Your task to perform on an android device: uninstall "Google Photos" Image 0: 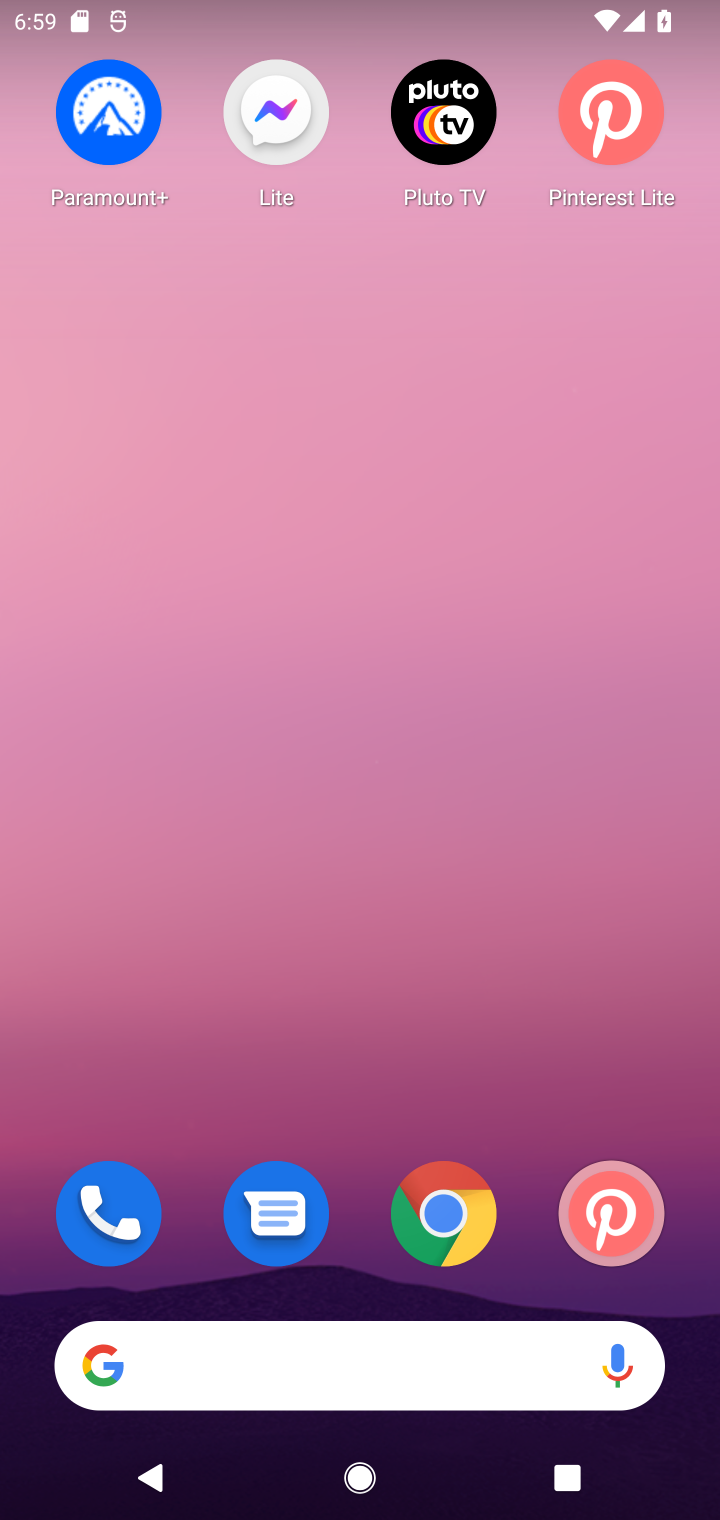
Step 0: drag from (373, 1049) to (184, 2)
Your task to perform on an android device: uninstall "Google Photos" Image 1: 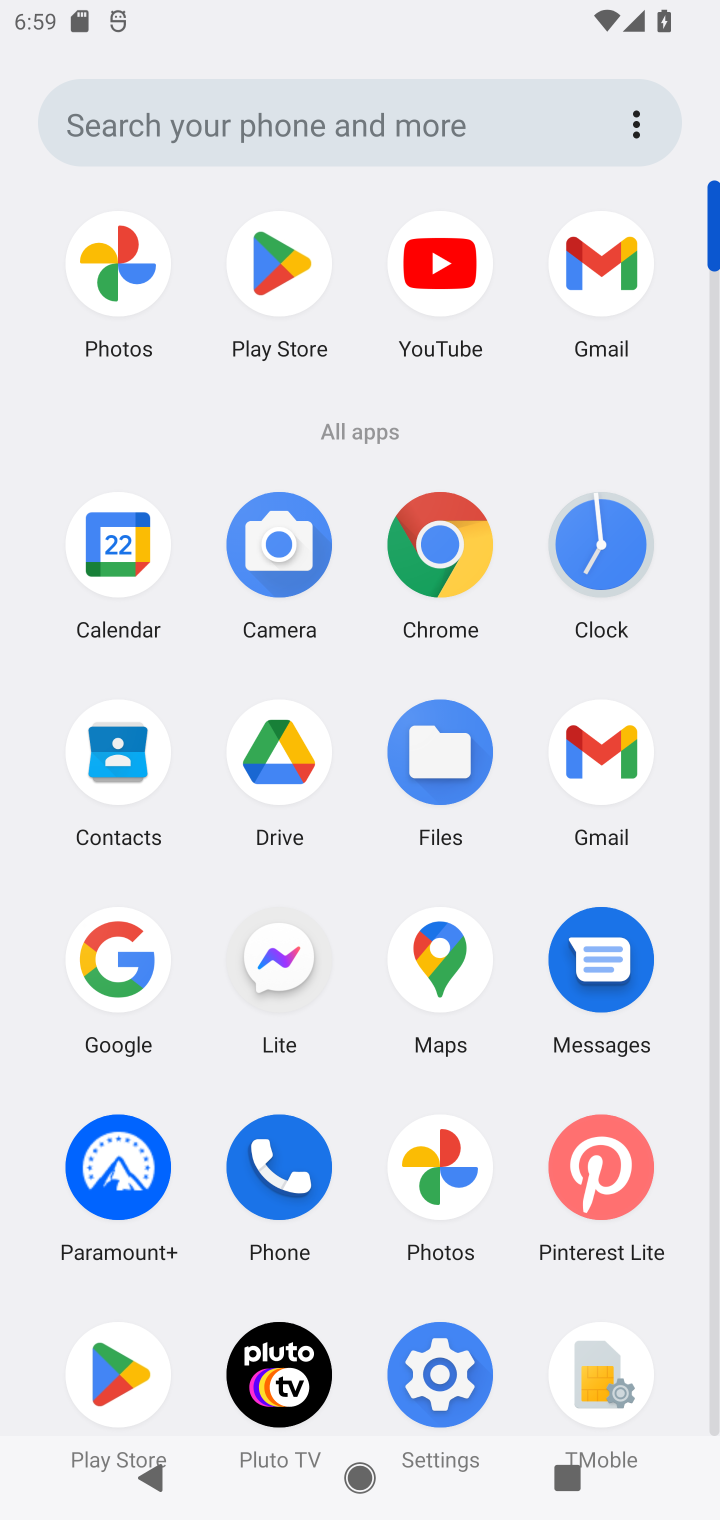
Step 1: click (283, 263)
Your task to perform on an android device: uninstall "Google Photos" Image 2: 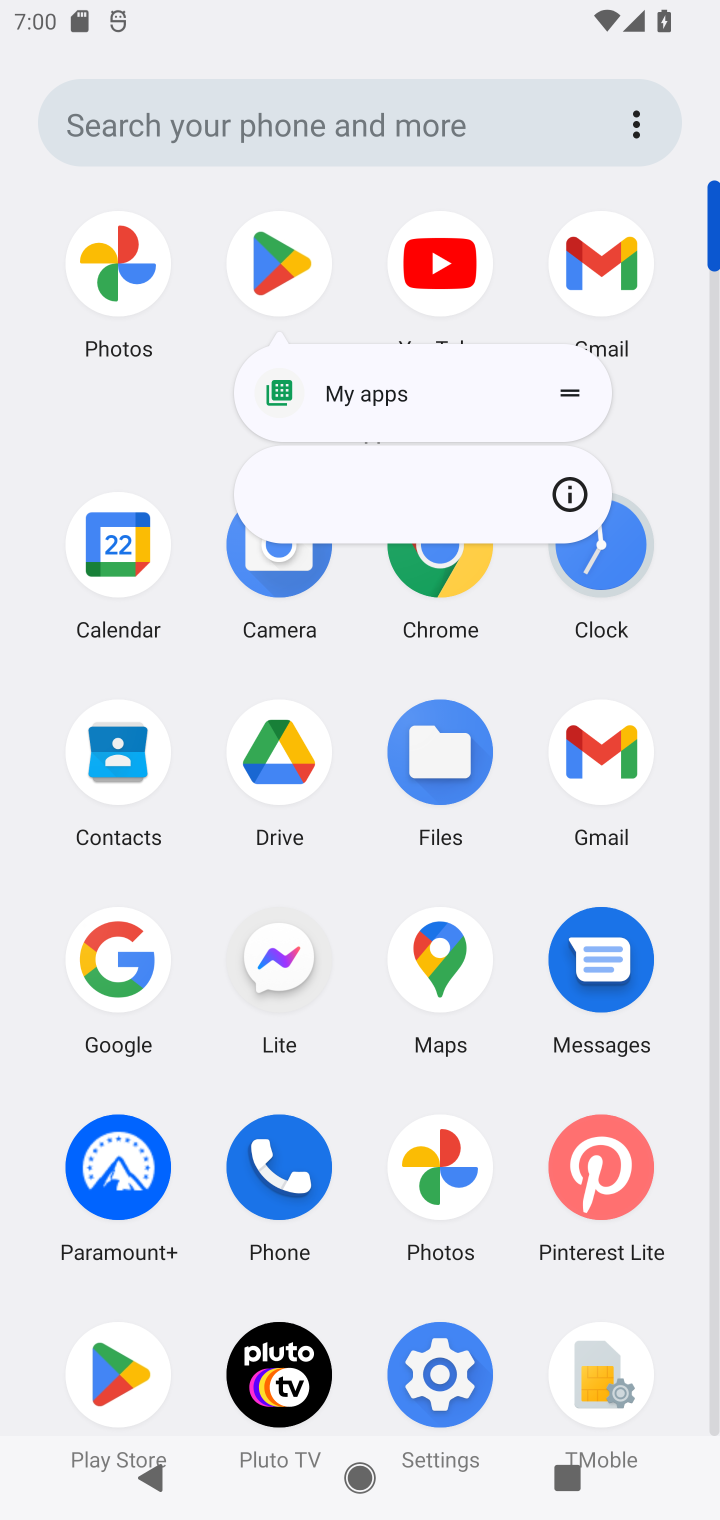
Step 2: click (264, 254)
Your task to perform on an android device: uninstall "Google Photos" Image 3: 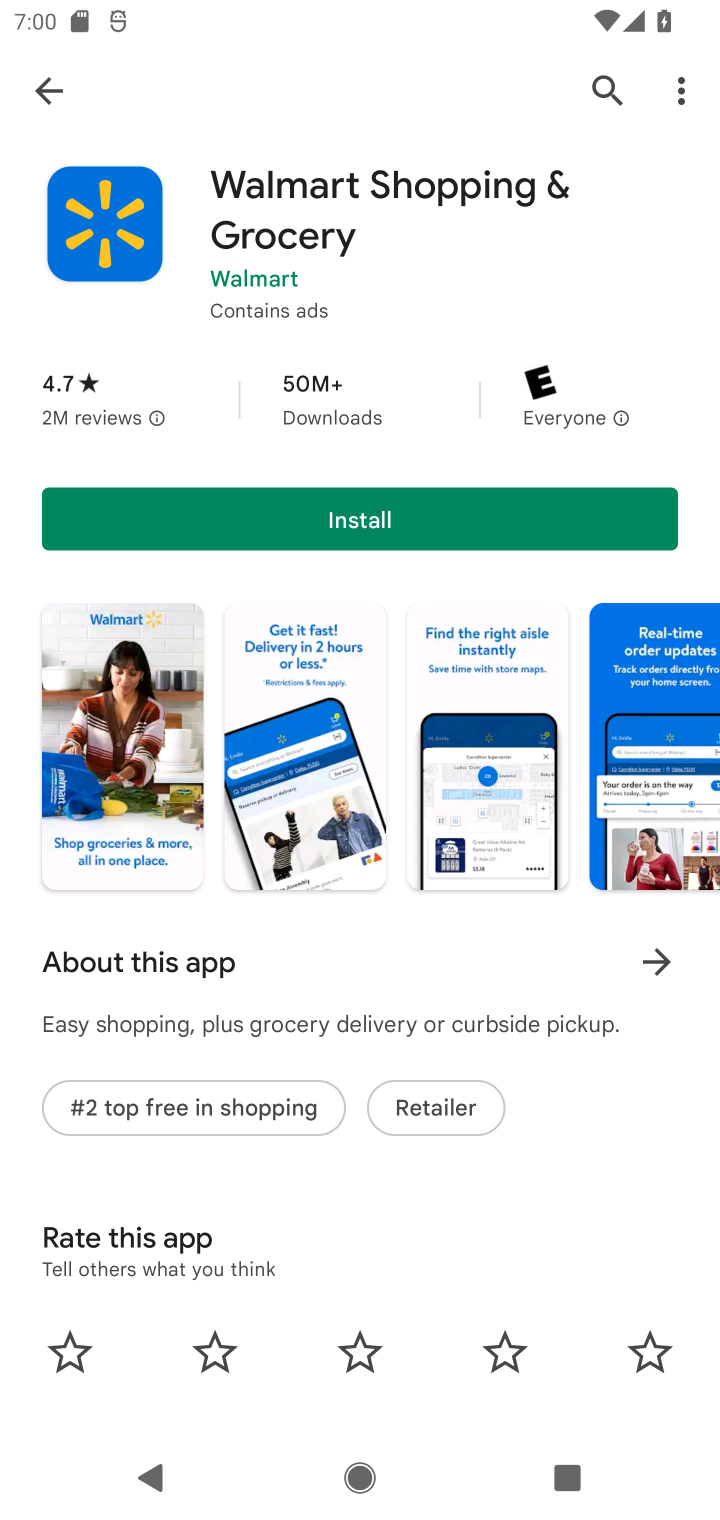
Step 3: click (594, 88)
Your task to perform on an android device: uninstall "Google Photos" Image 4: 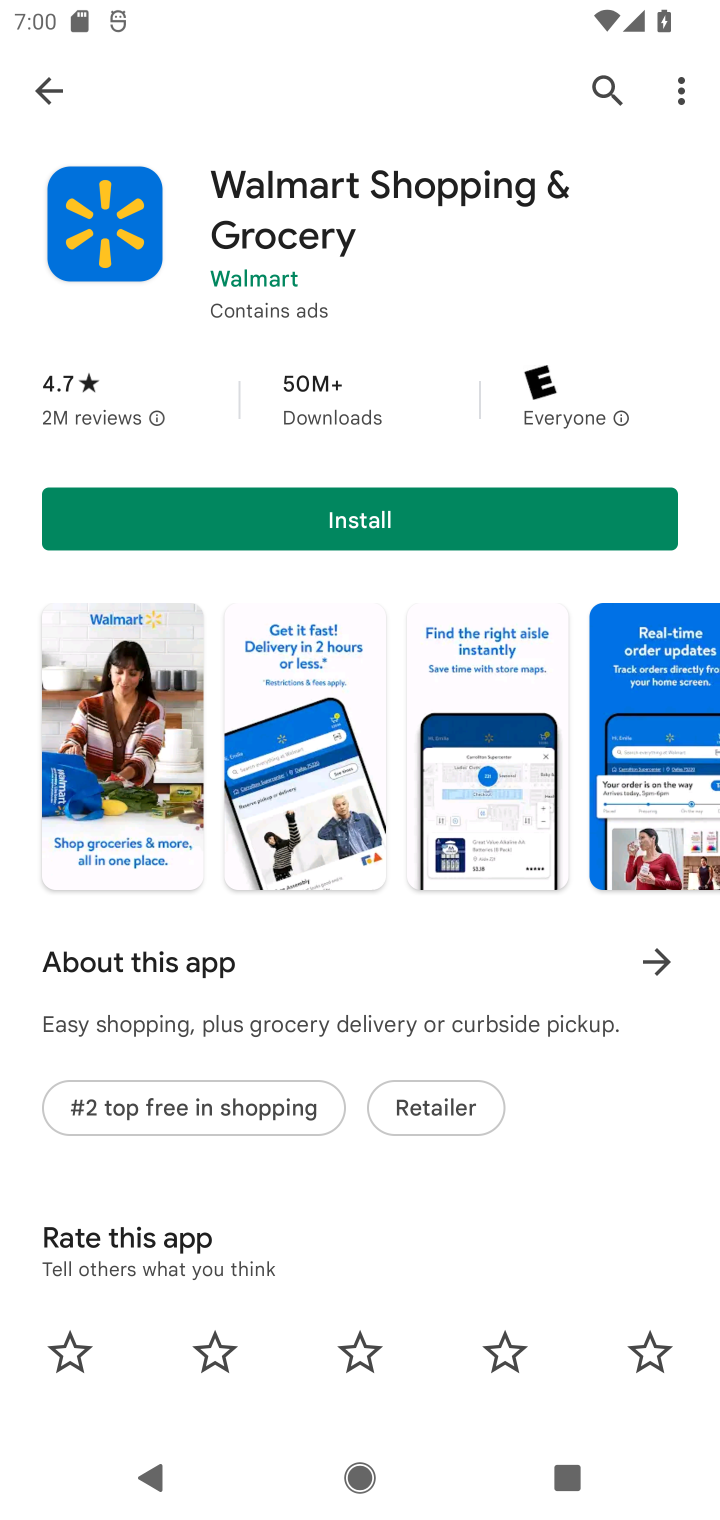
Step 4: press back button
Your task to perform on an android device: uninstall "Google Photos" Image 5: 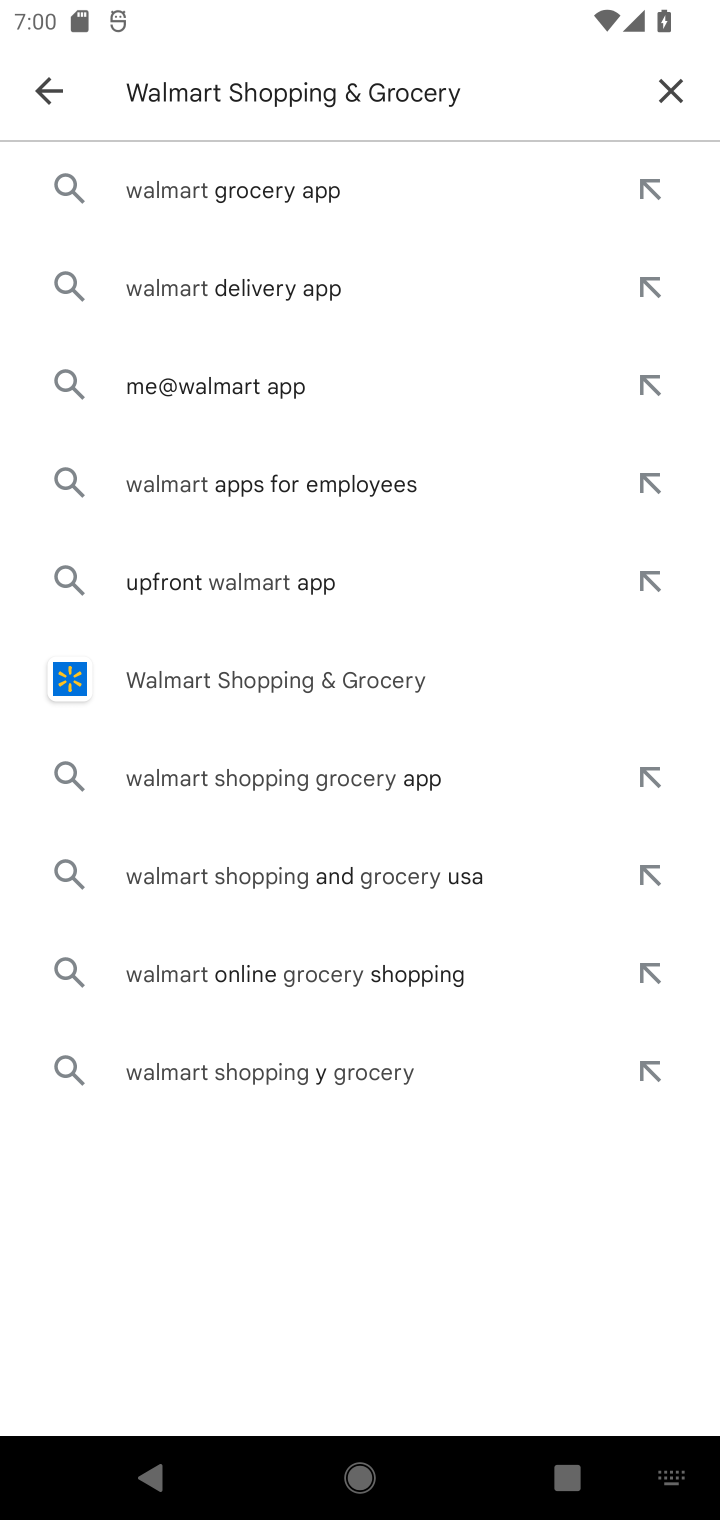
Step 5: click (691, 88)
Your task to perform on an android device: uninstall "Google Photos" Image 6: 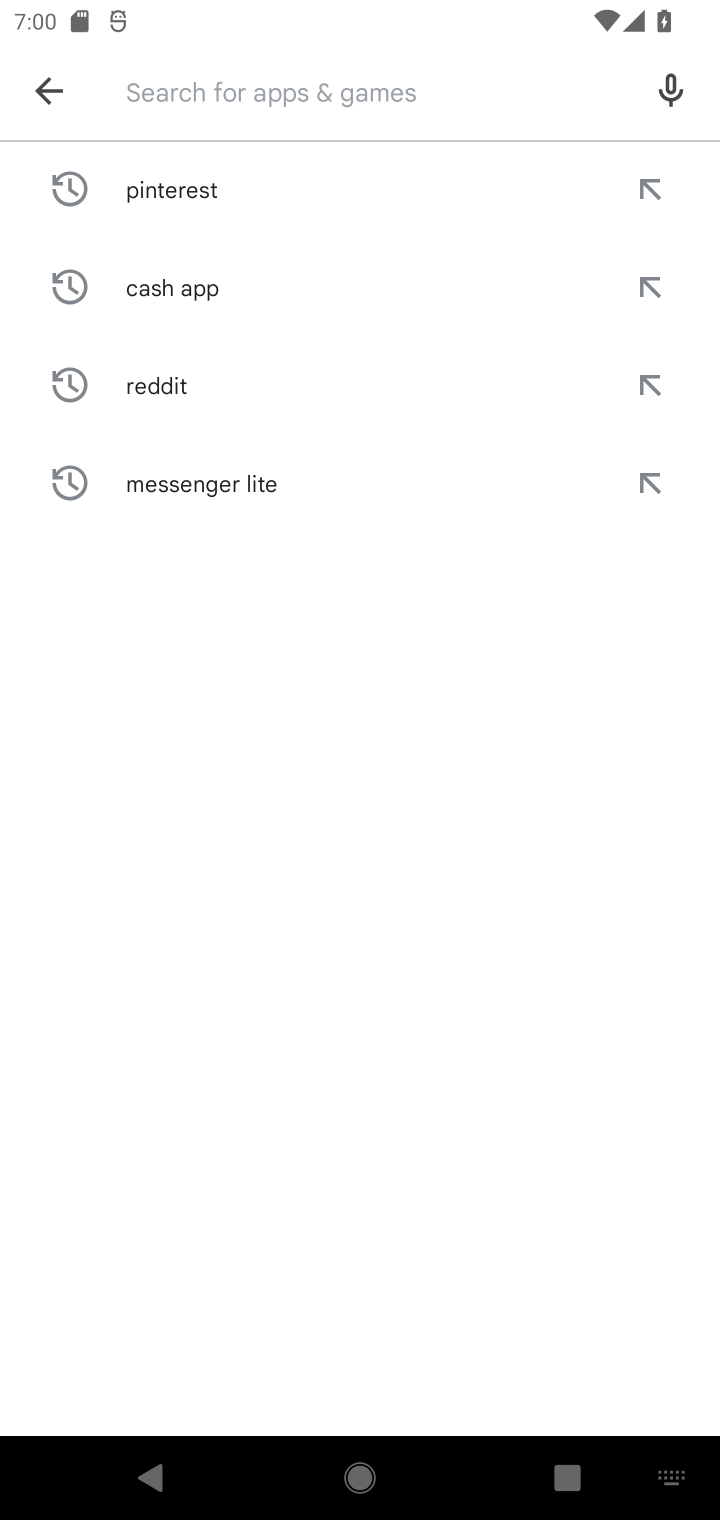
Step 6: type "Google Photos"
Your task to perform on an android device: uninstall "Google Photos" Image 7: 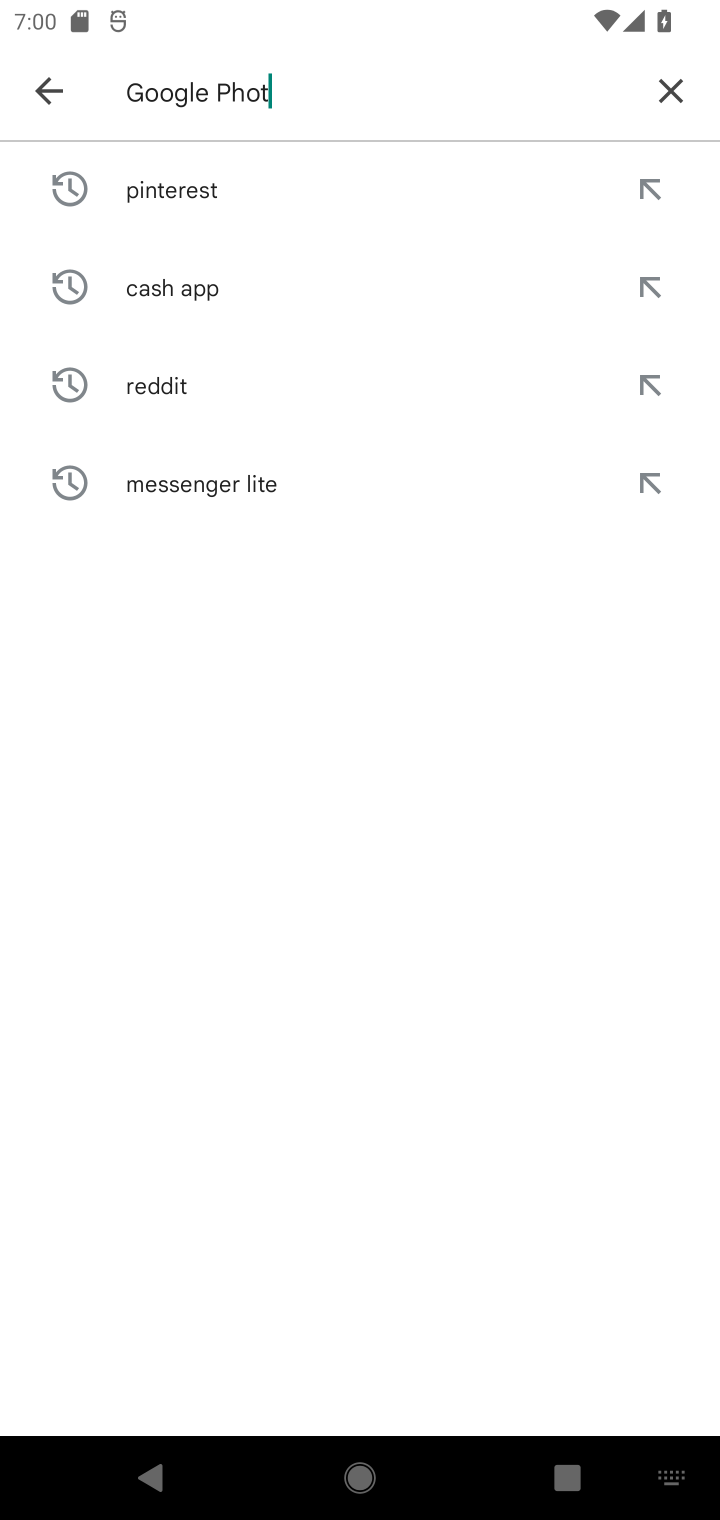
Step 7: type ""
Your task to perform on an android device: uninstall "Google Photos" Image 8: 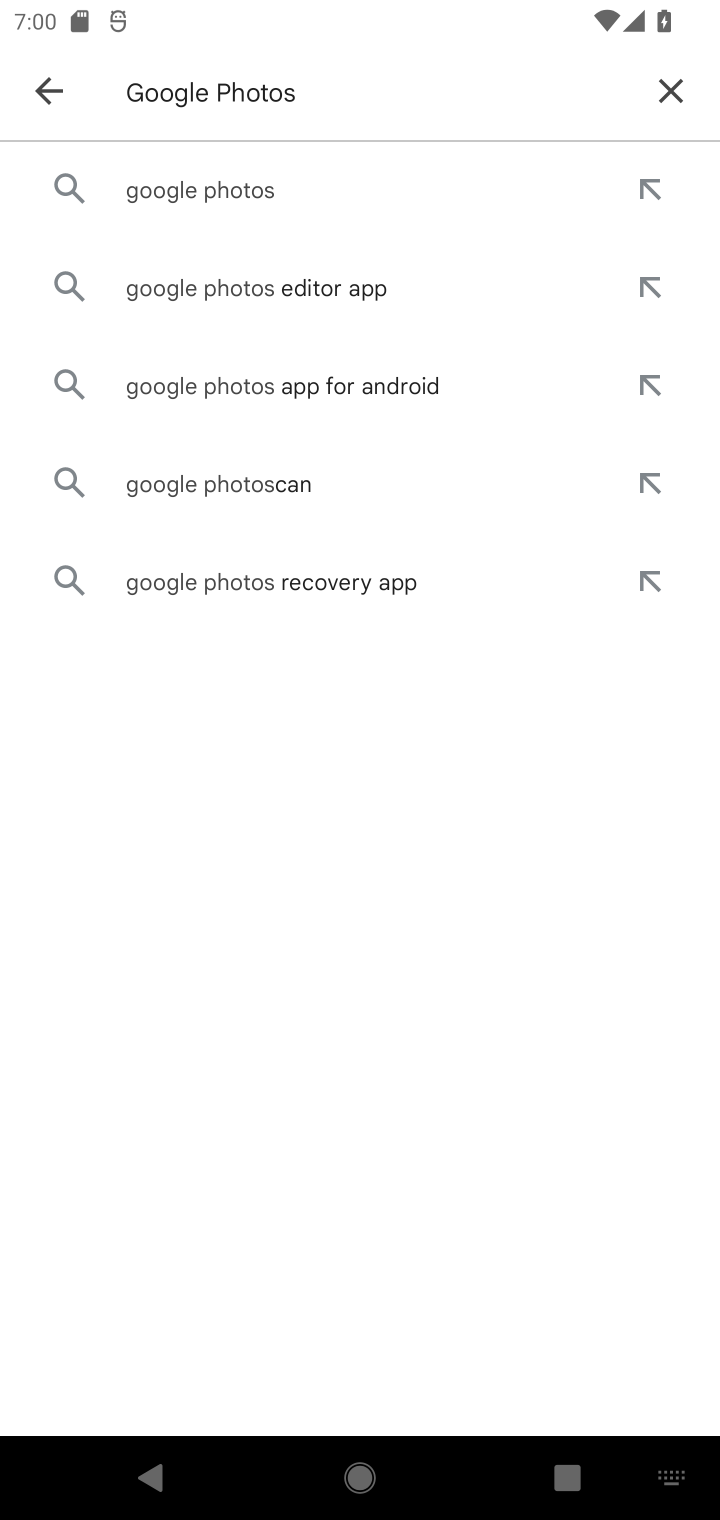
Step 8: click (215, 194)
Your task to perform on an android device: uninstall "Google Photos" Image 9: 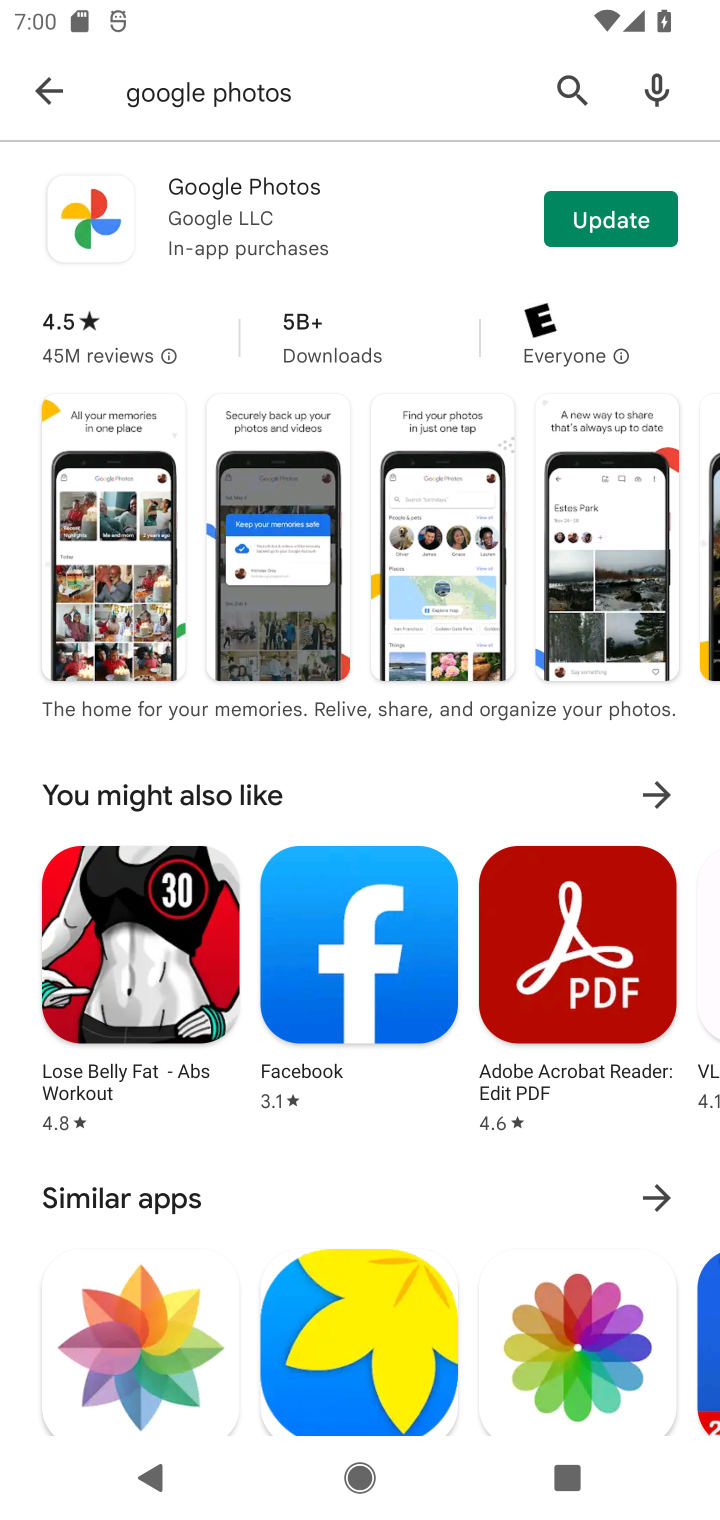
Step 9: task complete